Your task to perform on an android device: turn smart compose on in the gmail app Image 0: 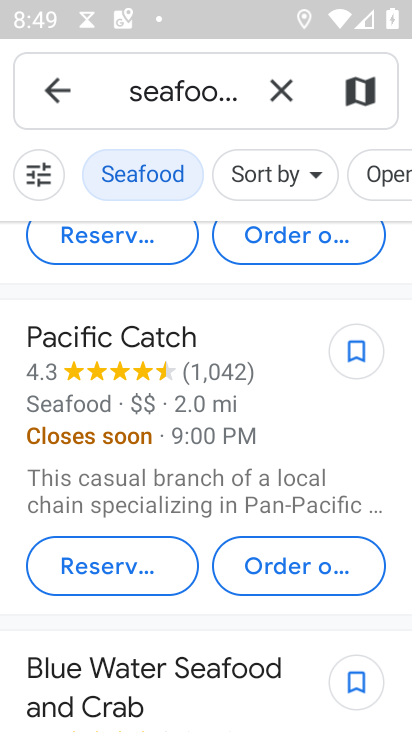
Step 0: press home button
Your task to perform on an android device: turn smart compose on in the gmail app Image 1: 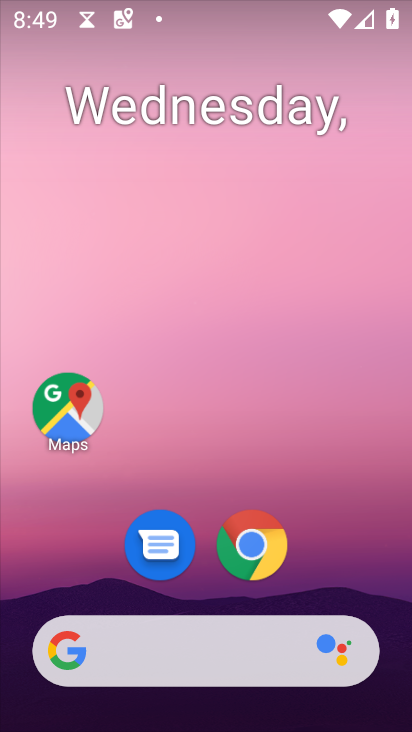
Step 1: drag from (178, 630) to (319, 76)
Your task to perform on an android device: turn smart compose on in the gmail app Image 2: 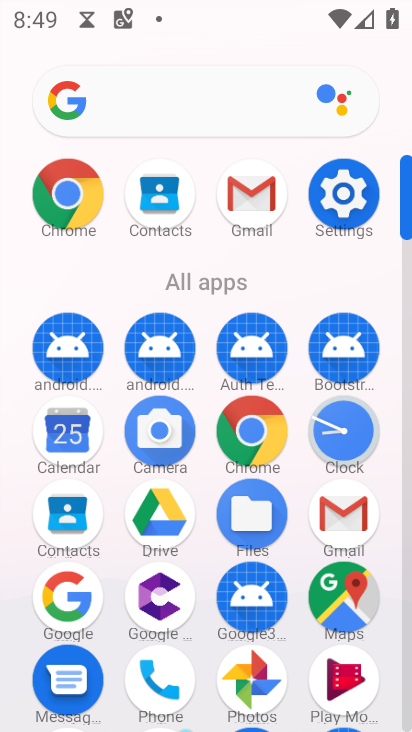
Step 2: click (245, 214)
Your task to perform on an android device: turn smart compose on in the gmail app Image 3: 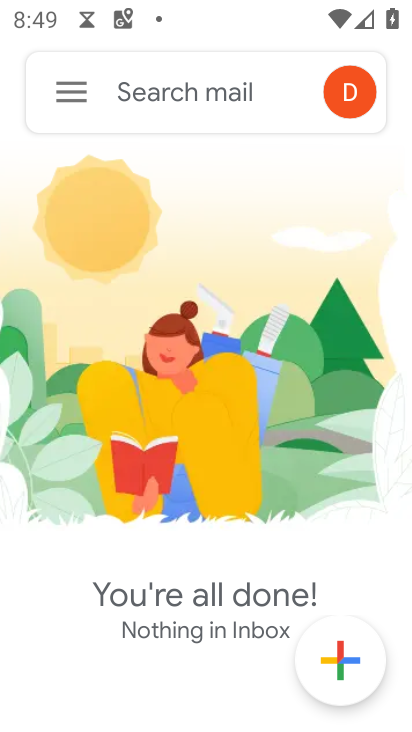
Step 3: click (81, 93)
Your task to perform on an android device: turn smart compose on in the gmail app Image 4: 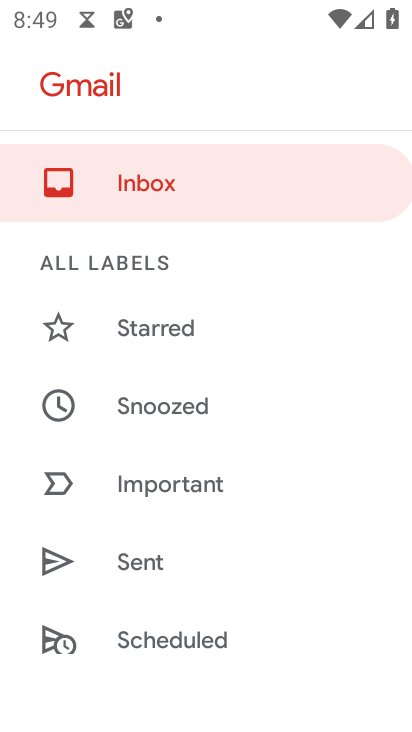
Step 4: drag from (243, 616) to (360, 133)
Your task to perform on an android device: turn smart compose on in the gmail app Image 5: 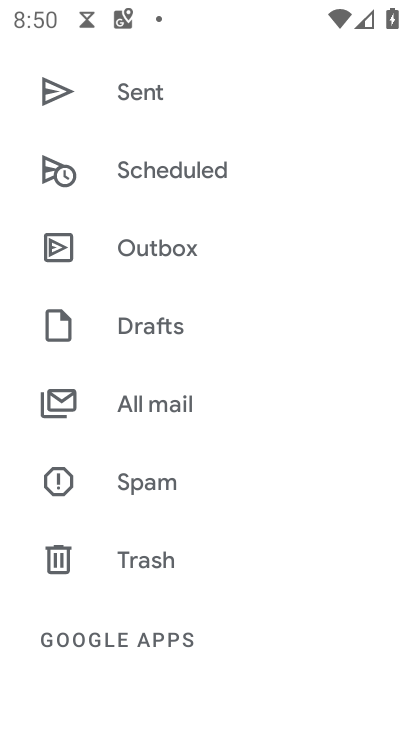
Step 5: drag from (265, 573) to (337, 114)
Your task to perform on an android device: turn smart compose on in the gmail app Image 6: 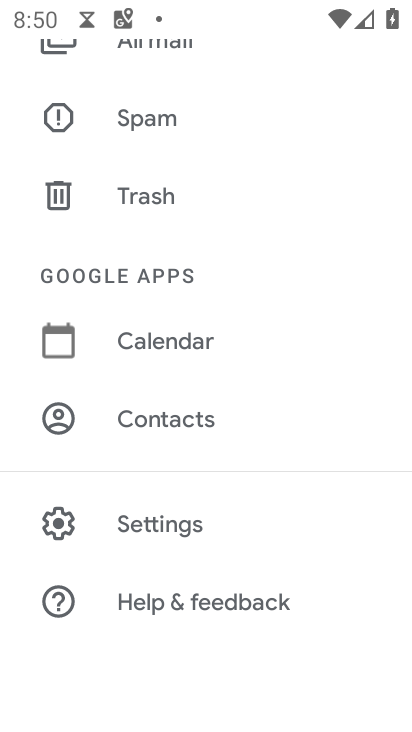
Step 6: click (178, 525)
Your task to perform on an android device: turn smart compose on in the gmail app Image 7: 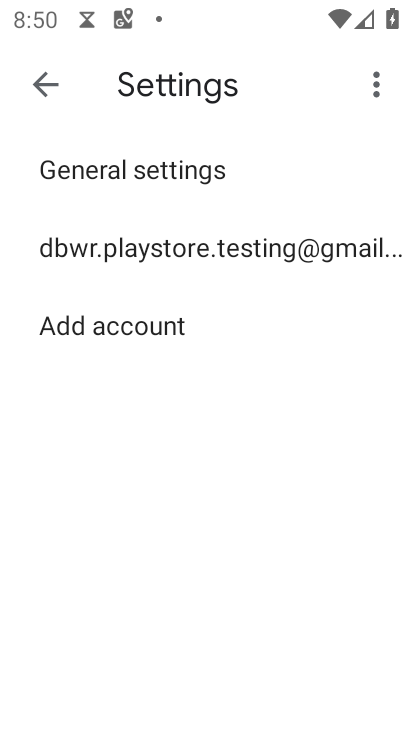
Step 7: click (253, 239)
Your task to perform on an android device: turn smart compose on in the gmail app Image 8: 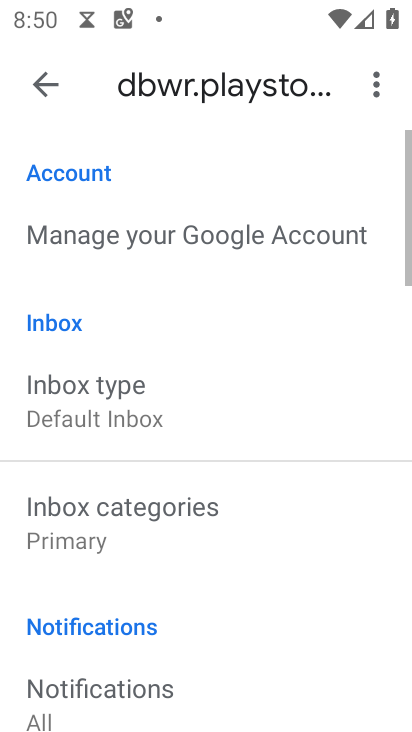
Step 8: task complete